Your task to perform on an android device: change timer sound Image 0: 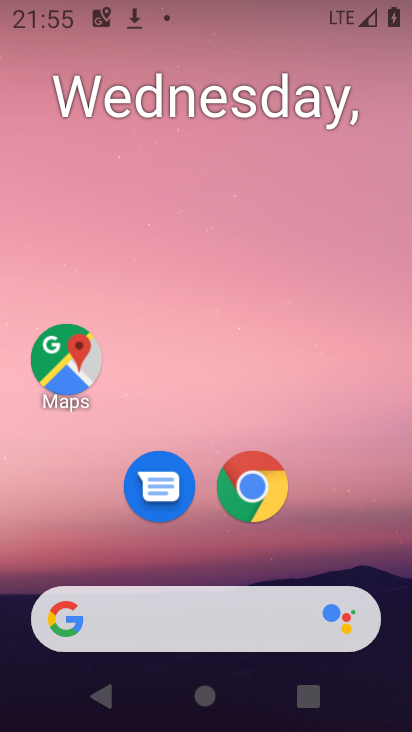
Step 0: drag from (146, 11) to (246, 22)
Your task to perform on an android device: change timer sound Image 1: 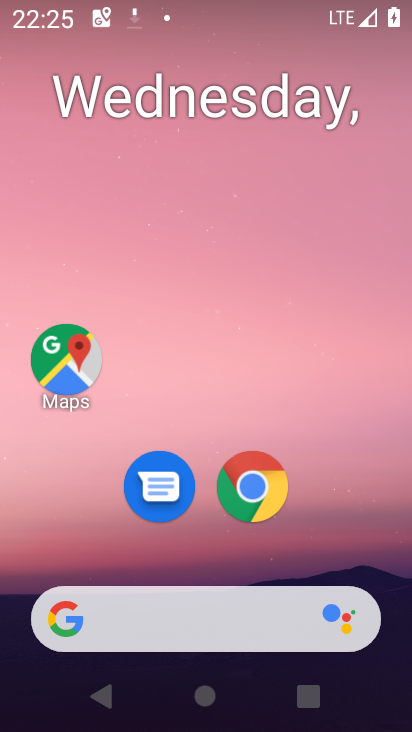
Step 1: drag from (193, 527) to (259, 15)
Your task to perform on an android device: change timer sound Image 2: 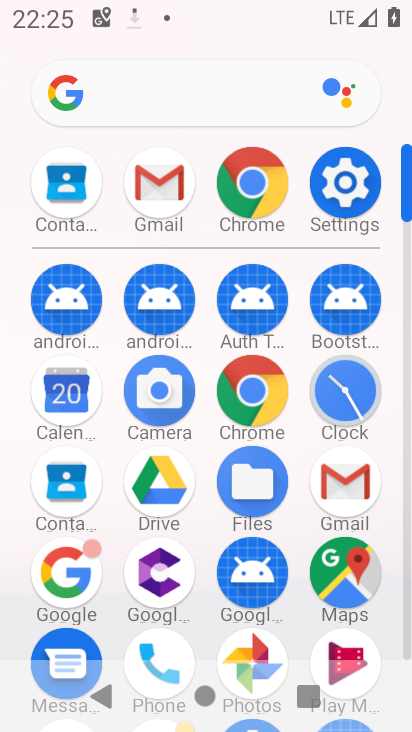
Step 2: click (342, 394)
Your task to perform on an android device: change timer sound Image 3: 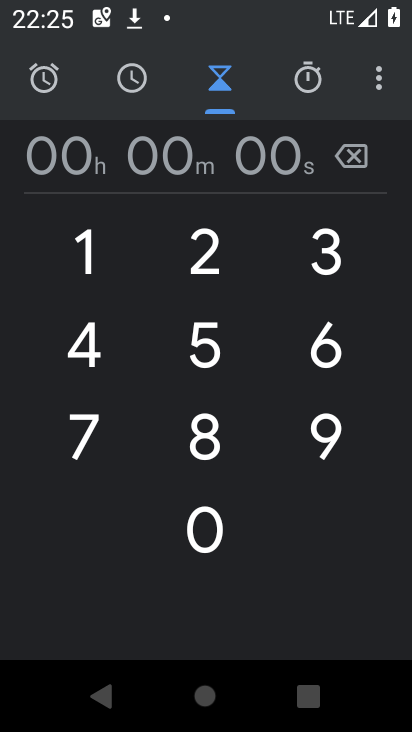
Step 3: click (387, 73)
Your task to perform on an android device: change timer sound Image 4: 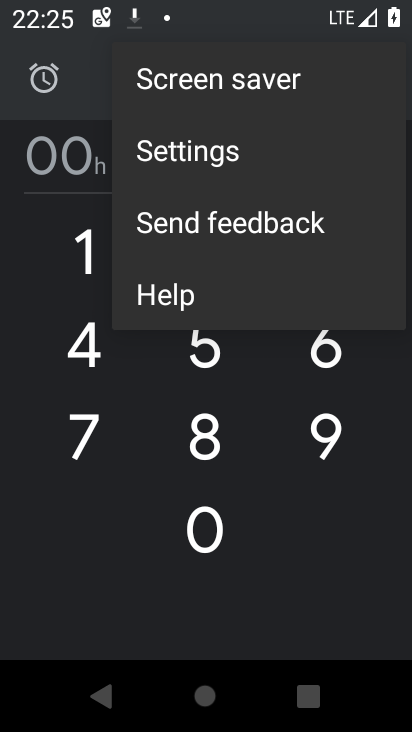
Step 4: click (200, 162)
Your task to perform on an android device: change timer sound Image 5: 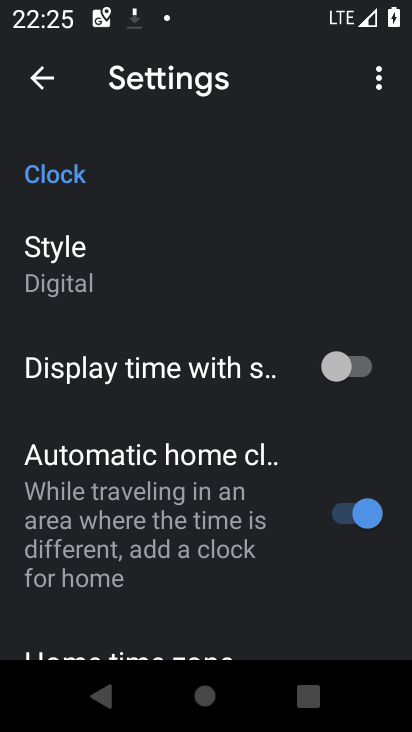
Step 5: drag from (167, 590) to (273, 27)
Your task to perform on an android device: change timer sound Image 6: 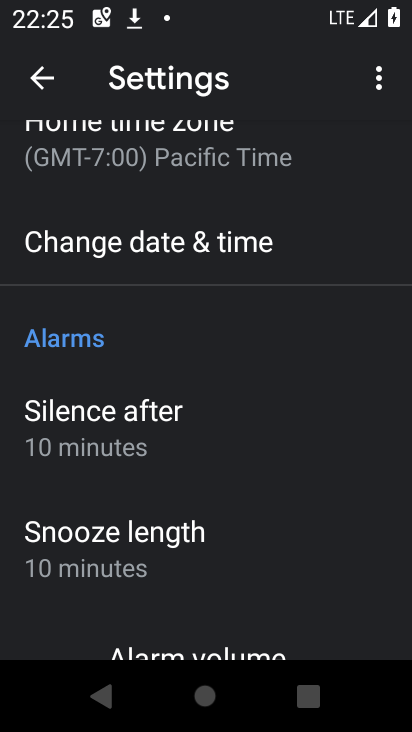
Step 6: drag from (128, 576) to (244, 34)
Your task to perform on an android device: change timer sound Image 7: 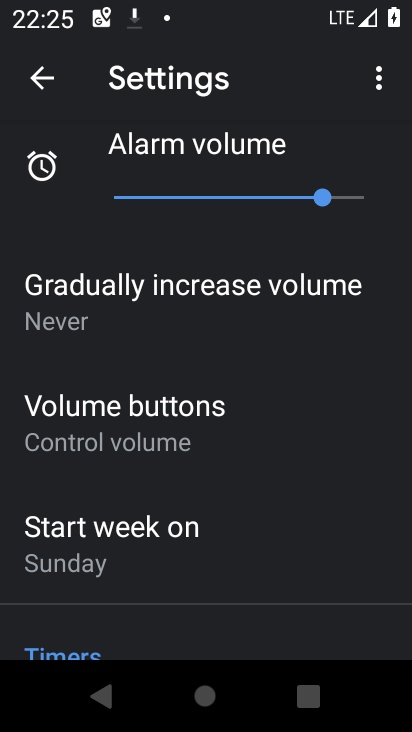
Step 7: drag from (192, 526) to (288, 62)
Your task to perform on an android device: change timer sound Image 8: 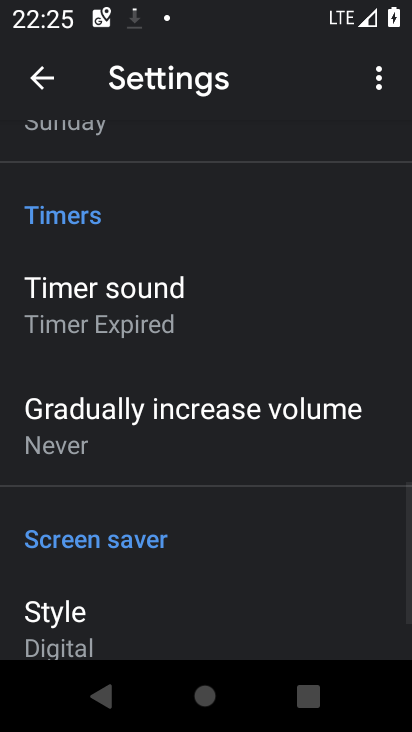
Step 8: click (127, 304)
Your task to perform on an android device: change timer sound Image 9: 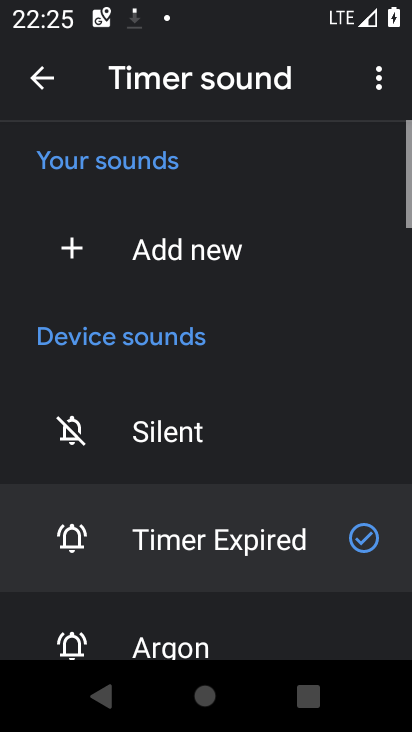
Step 9: click (183, 648)
Your task to perform on an android device: change timer sound Image 10: 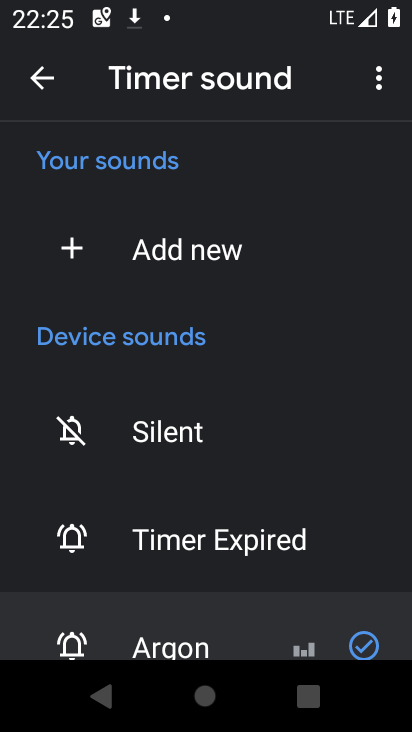
Step 10: task complete